Your task to perform on an android device: Search for top rated burger restaurants on Google Maps Image 0: 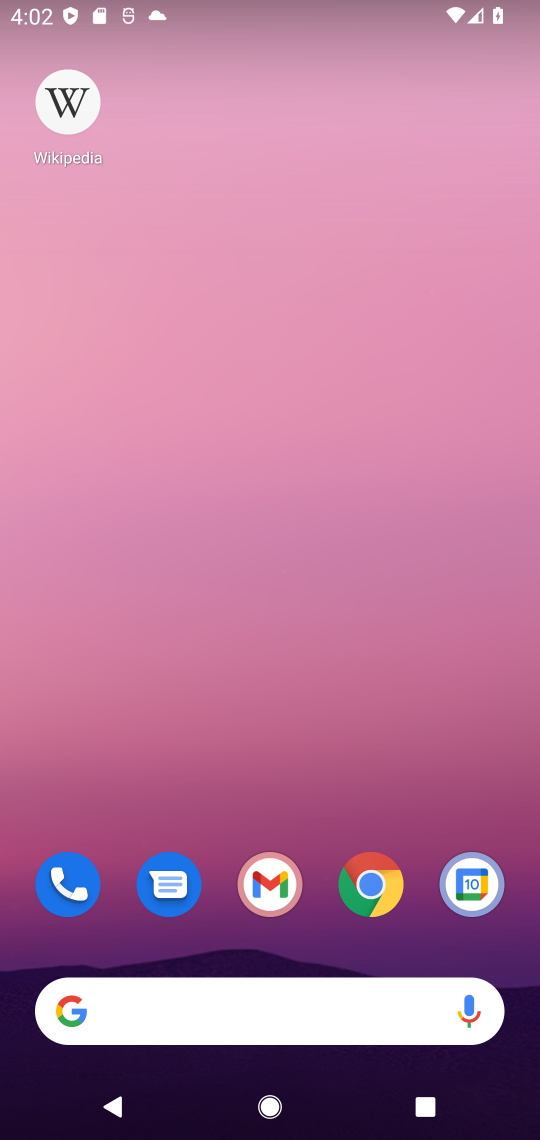
Step 0: drag from (322, 862) to (325, 38)
Your task to perform on an android device: Search for top rated burger restaurants on Google Maps Image 1: 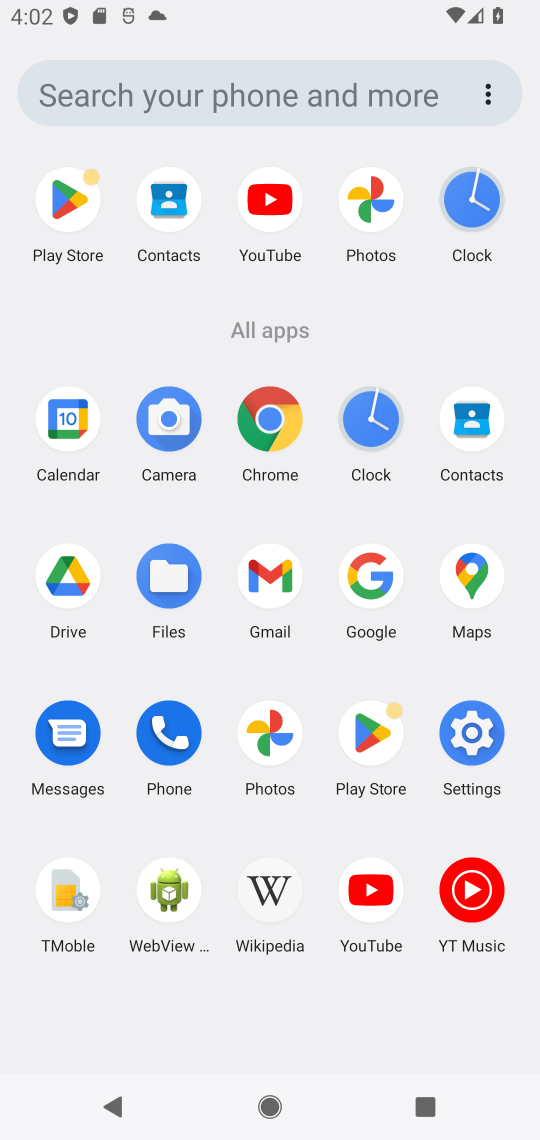
Step 1: click (466, 575)
Your task to perform on an android device: Search for top rated burger restaurants on Google Maps Image 2: 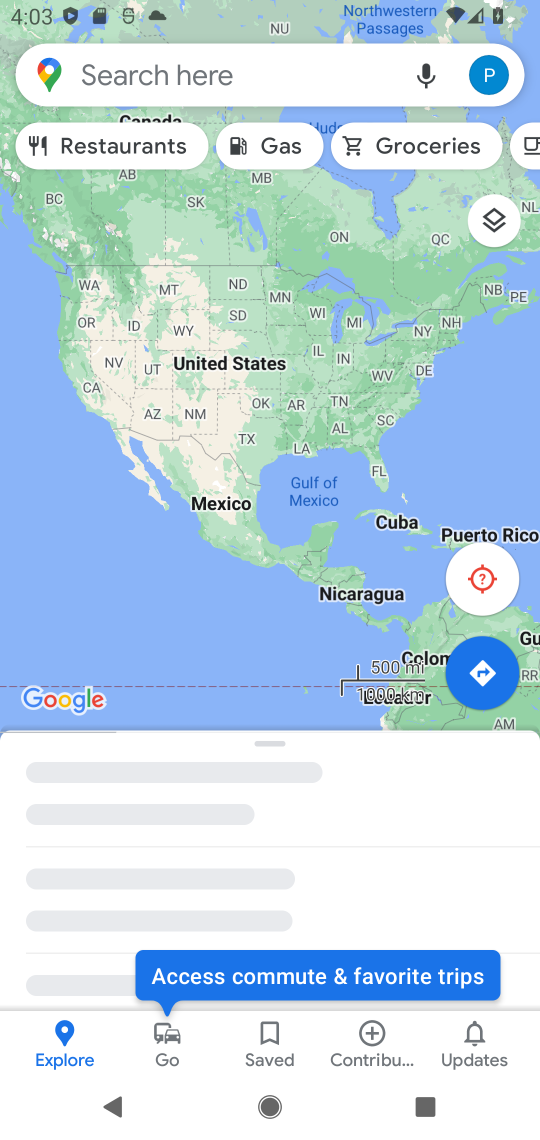
Step 2: click (134, 80)
Your task to perform on an android device: Search for top rated burger restaurants on Google Maps Image 3: 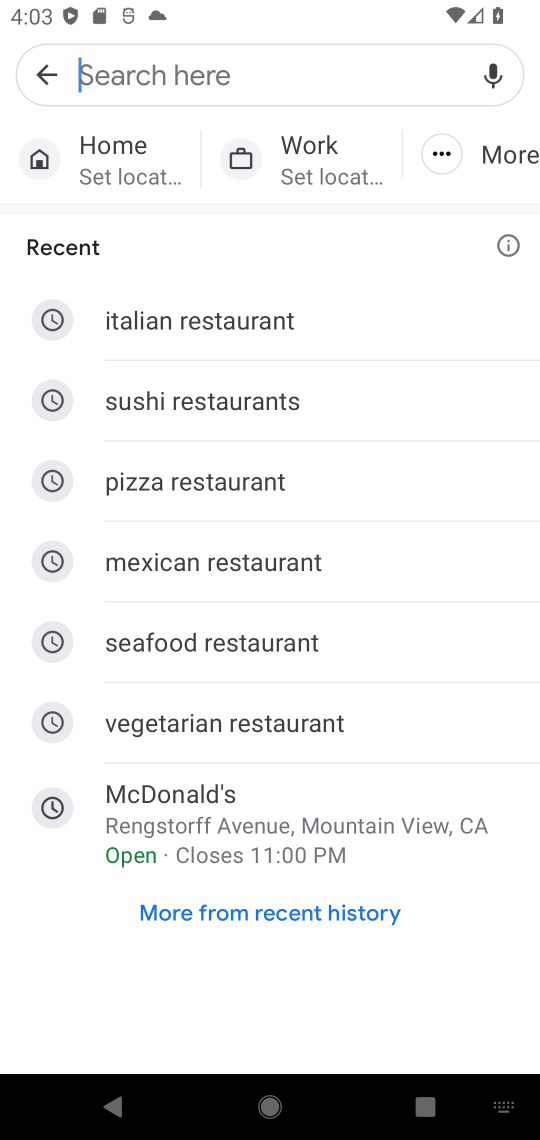
Step 3: type " top rated burger restaurants"
Your task to perform on an android device: Search for top rated burger restaurants on Google Maps Image 4: 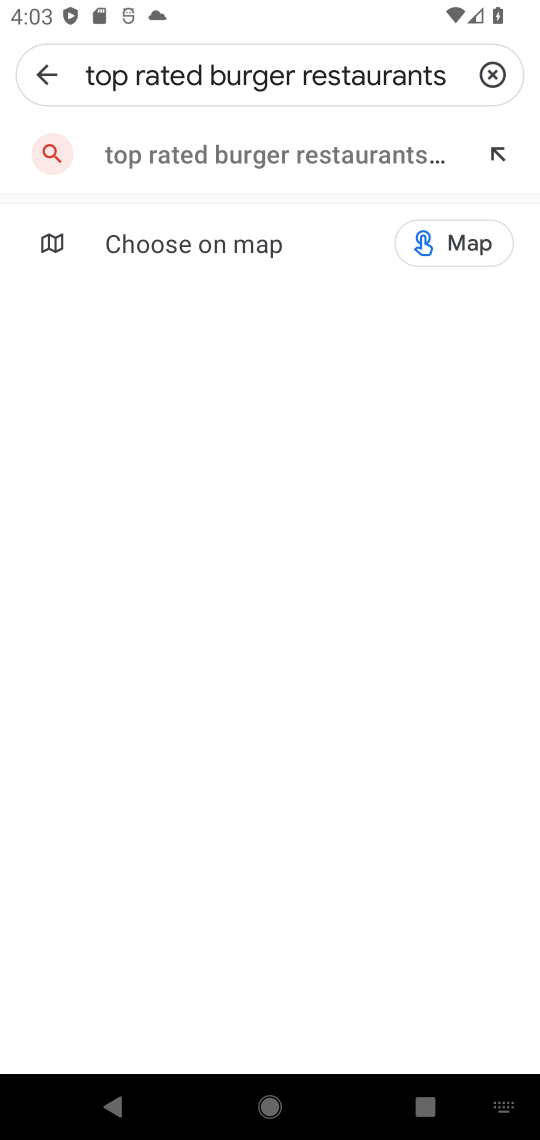
Step 4: click (218, 162)
Your task to perform on an android device: Search for top rated burger restaurants on Google Maps Image 5: 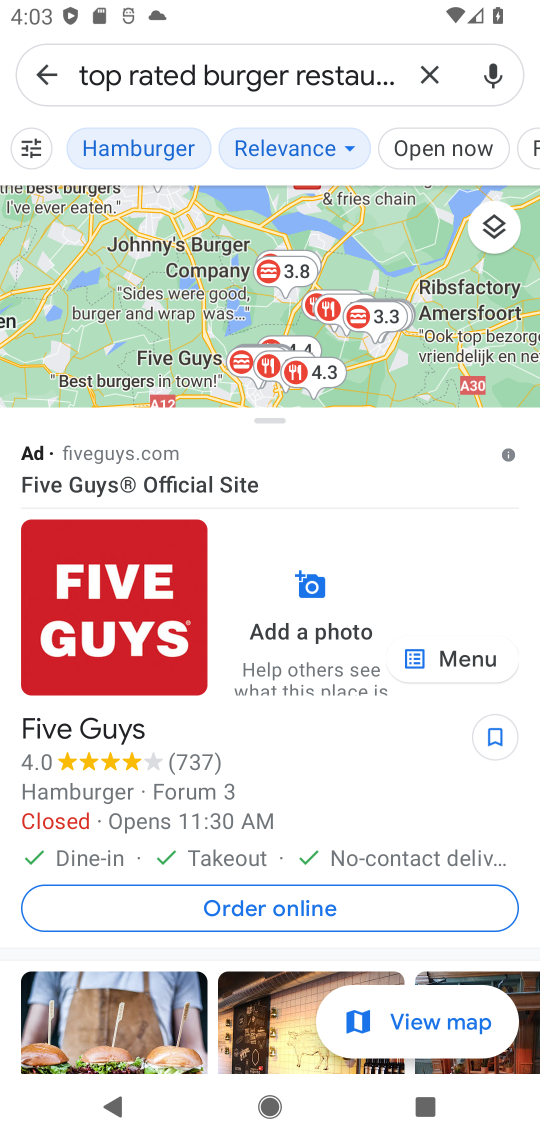
Step 5: task complete